Your task to perform on an android device: turn on showing notifications on the lock screen Image 0: 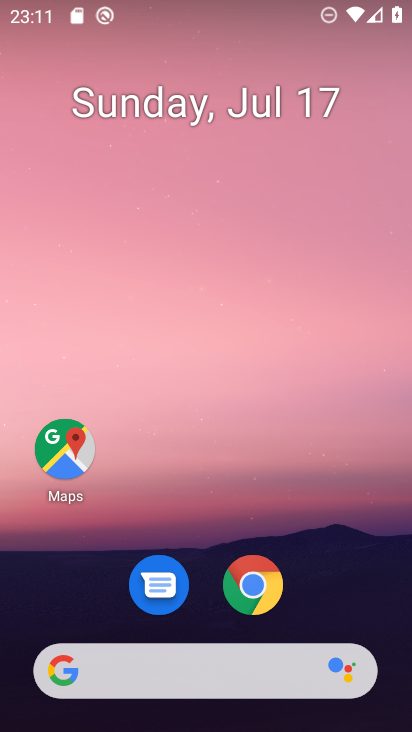
Step 0: drag from (154, 577) to (282, 64)
Your task to perform on an android device: turn on showing notifications on the lock screen Image 1: 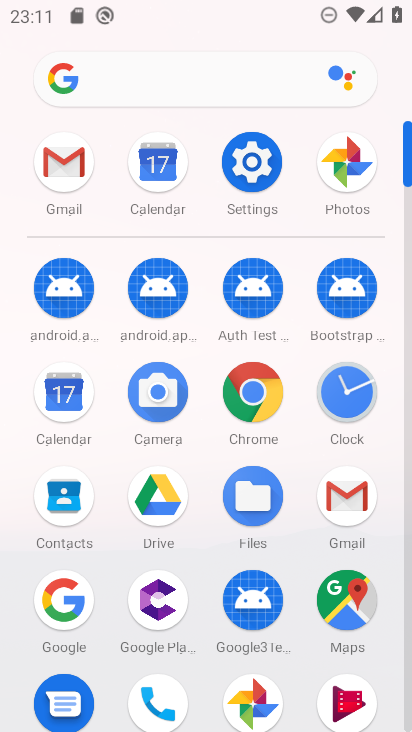
Step 1: click (255, 167)
Your task to perform on an android device: turn on showing notifications on the lock screen Image 2: 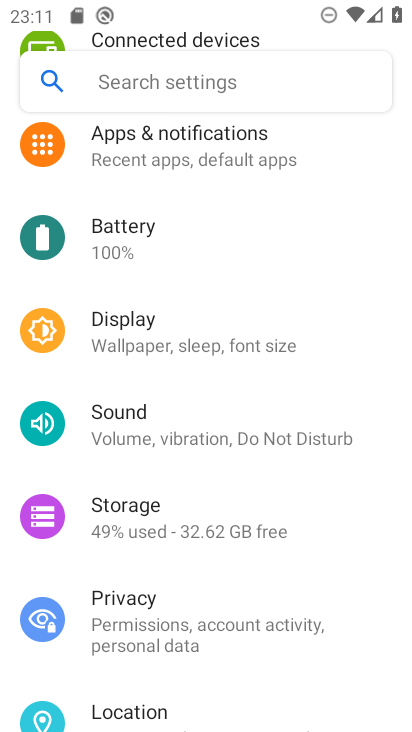
Step 2: click (258, 144)
Your task to perform on an android device: turn on showing notifications on the lock screen Image 3: 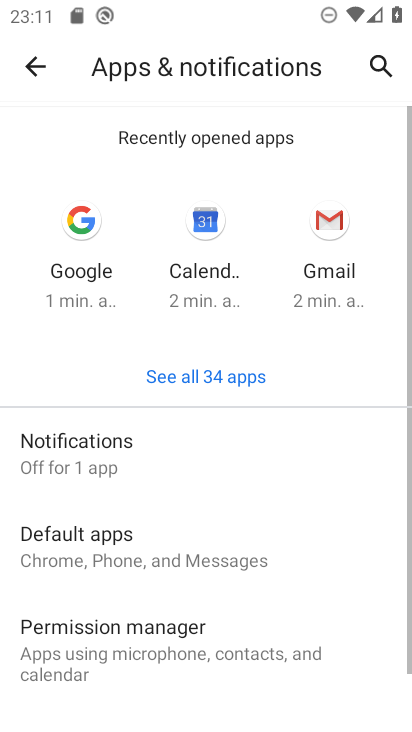
Step 3: click (111, 447)
Your task to perform on an android device: turn on showing notifications on the lock screen Image 4: 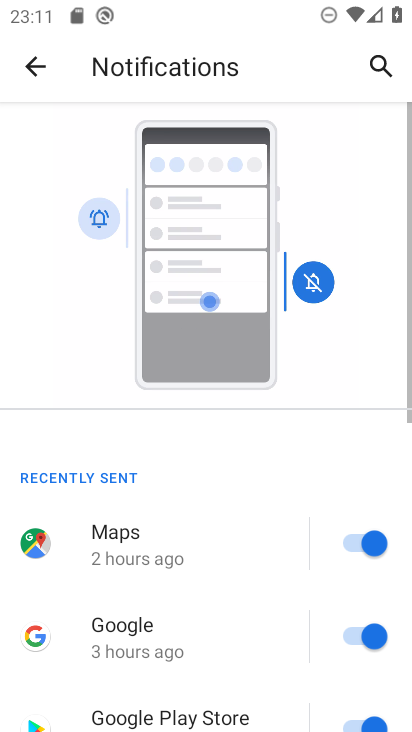
Step 4: drag from (203, 570) to (390, 28)
Your task to perform on an android device: turn on showing notifications on the lock screen Image 5: 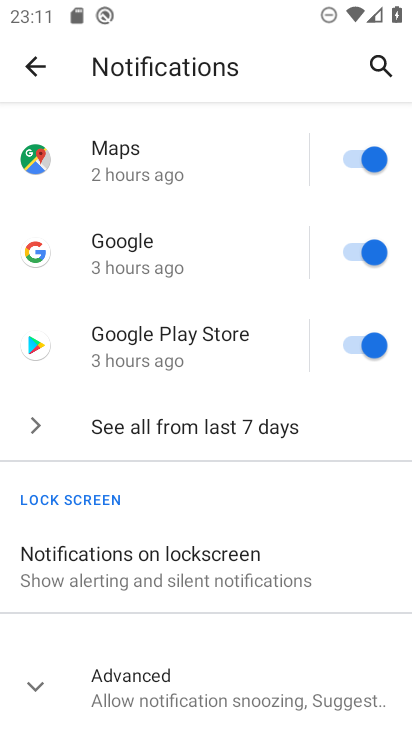
Step 5: click (210, 574)
Your task to perform on an android device: turn on showing notifications on the lock screen Image 6: 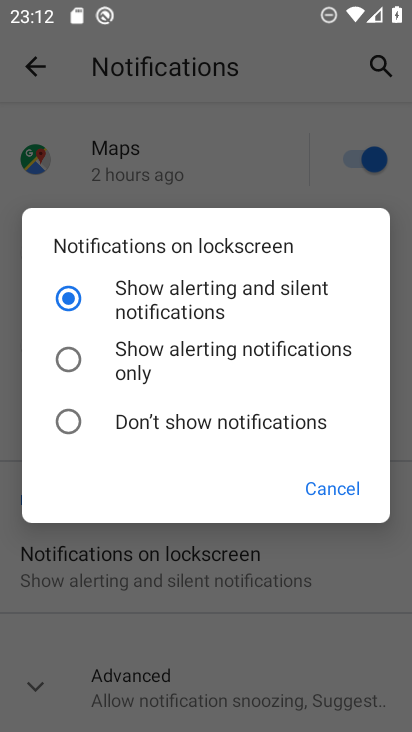
Step 6: task complete